Your task to perform on an android device: clear all cookies in the chrome app Image 0: 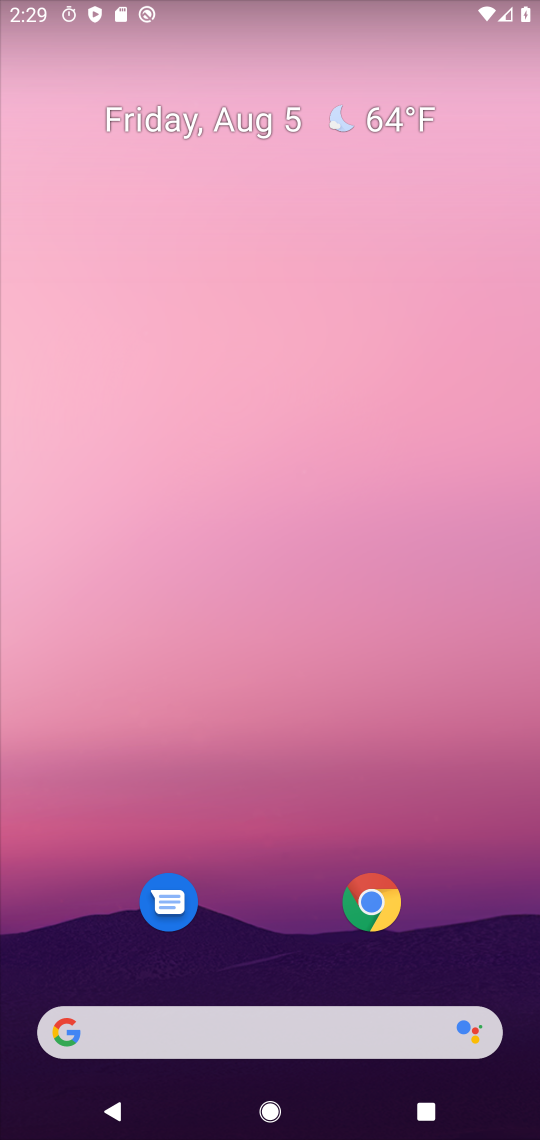
Step 0: drag from (352, 1063) to (411, 224)
Your task to perform on an android device: clear all cookies in the chrome app Image 1: 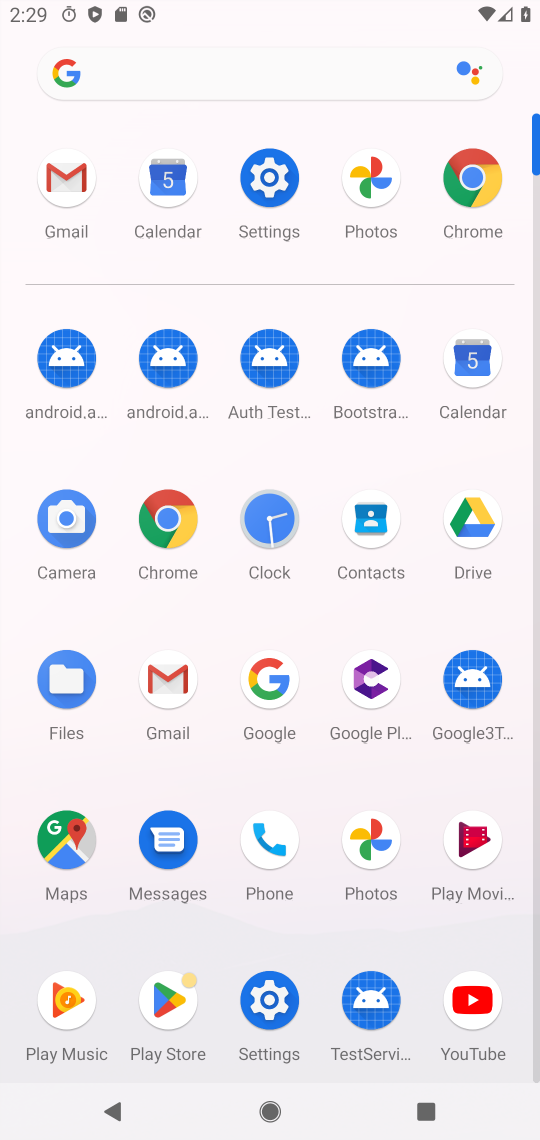
Step 1: click (472, 169)
Your task to perform on an android device: clear all cookies in the chrome app Image 2: 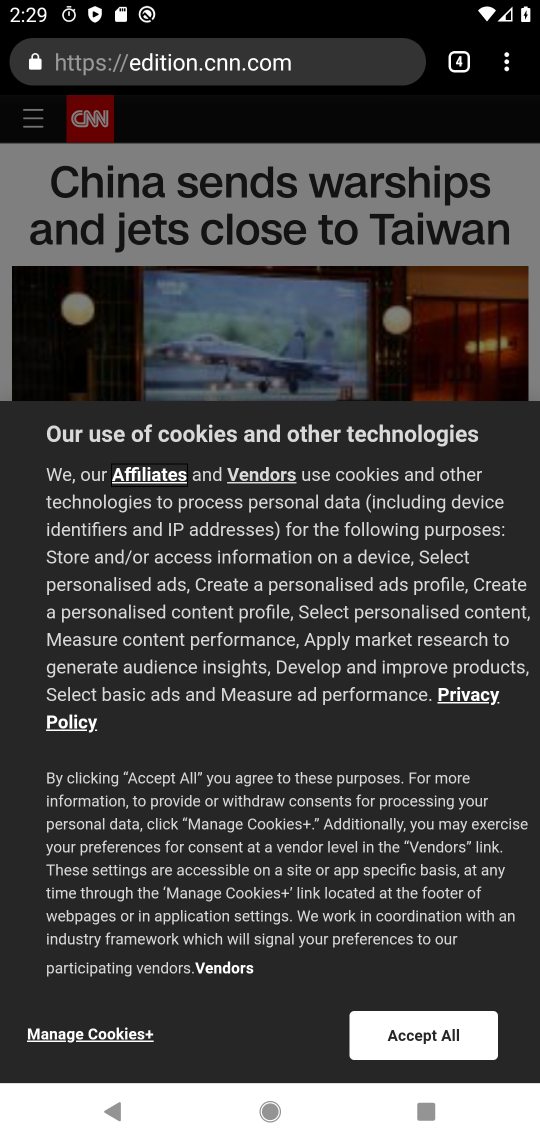
Step 2: click (507, 68)
Your task to perform on an android device: clear all cookies in the chrome app Image 3: 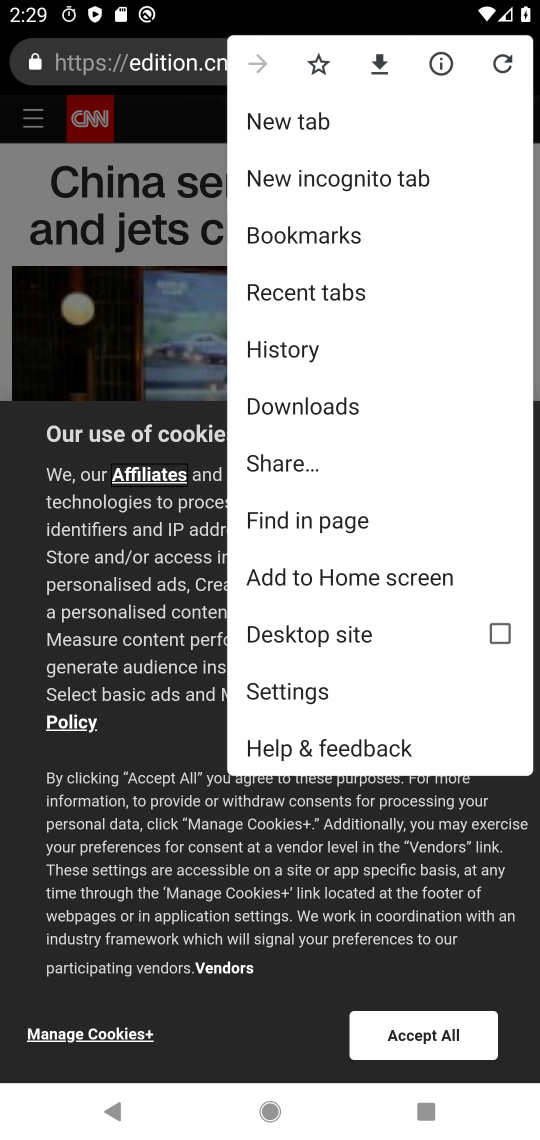
Step 3: click (280, 685)
Your task to perform on an android device: clear all cookies in the chrome app Image 4: 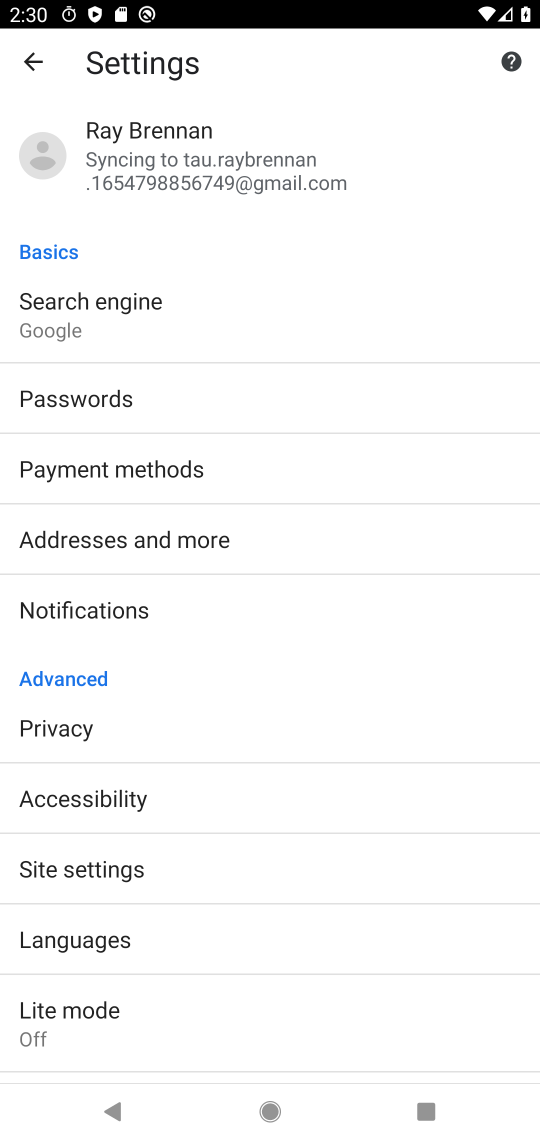
Step 4: click (91, 741)
Your task to perform on an android device: clear all cookies in the chrome app Image 5: 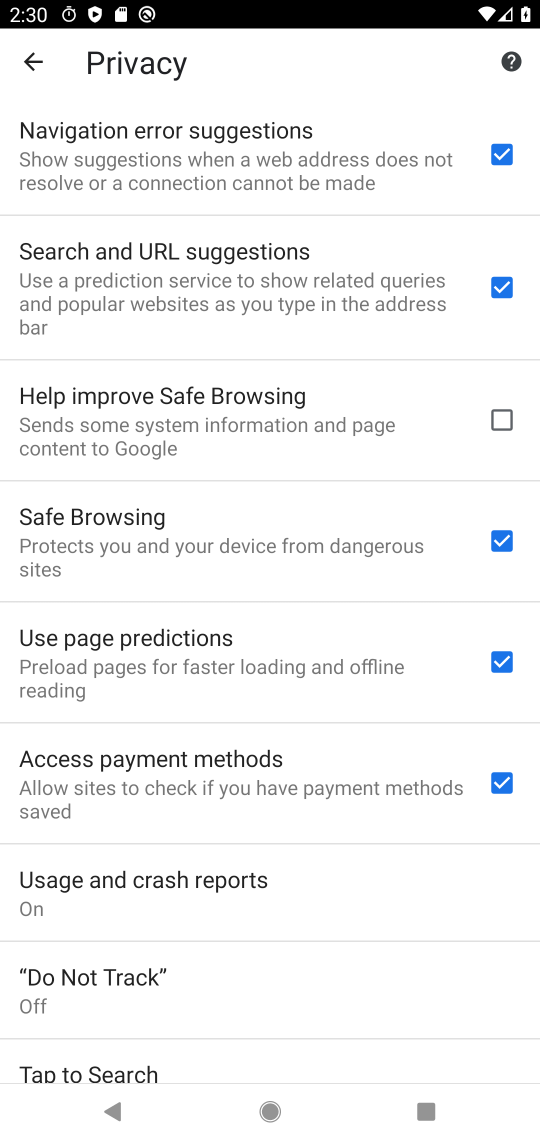
Step 5: drag from (162, 922) to (159, 661)
Your task to perform on an android device: clear all cookies in the chrome app Image 6: 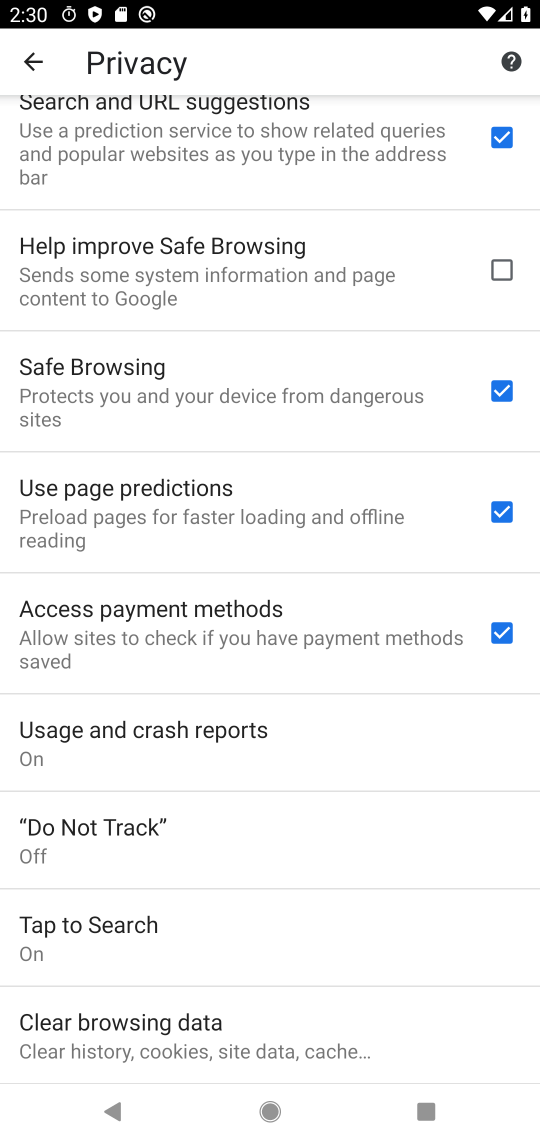
Step 6: click (166, 1035)
Your task to perform on an android device: clear all cookies in the chrome app Image 7: 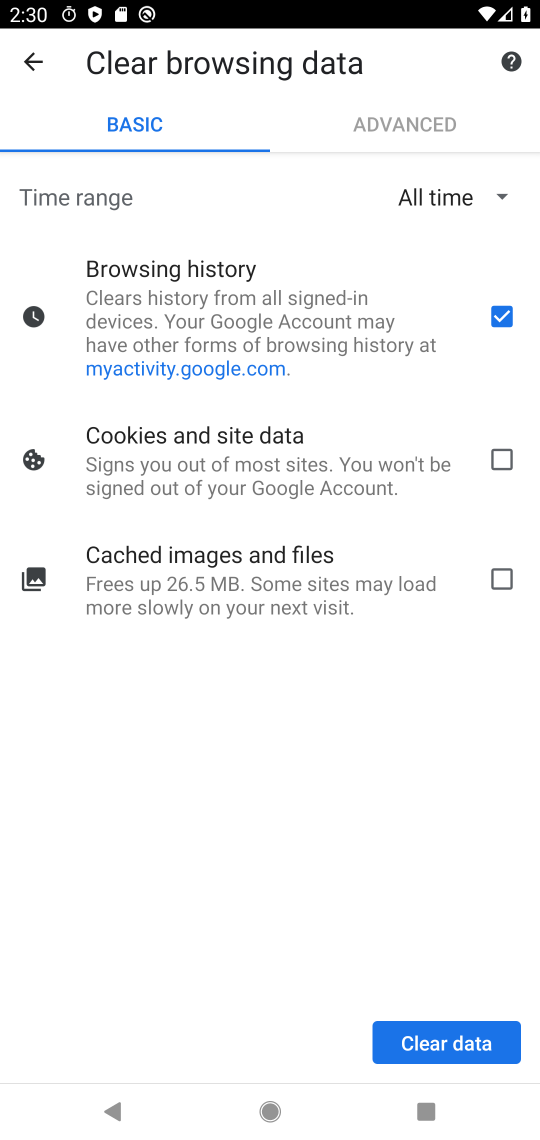
Step 7: click (455, 1027)
Your task to perform on an android device: clear all cookies in the chrome app Image 8: 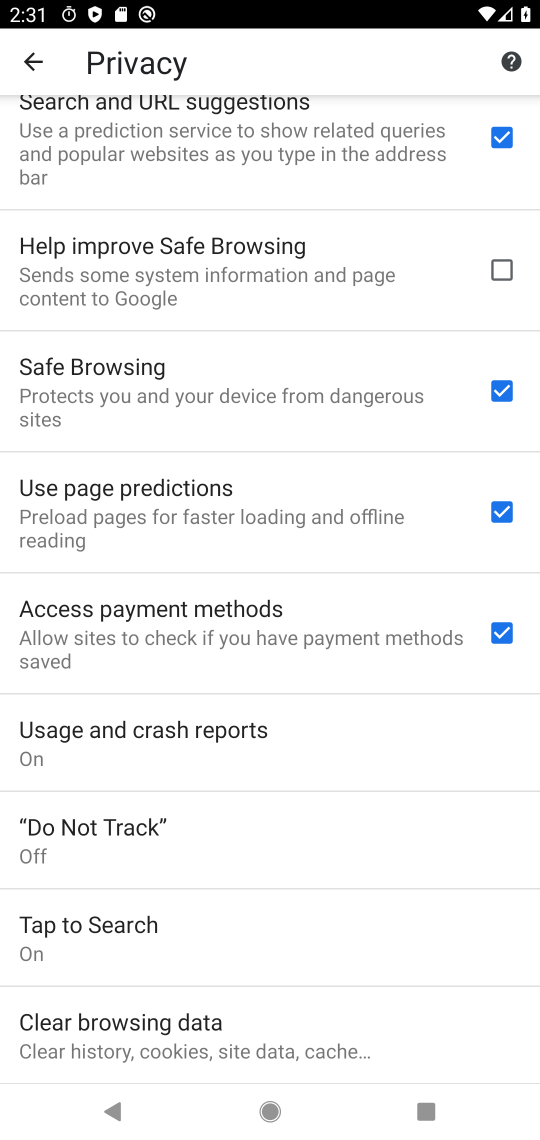
Step 8: task complete